Your task to perform on an android device: Open battery settings Image 0: 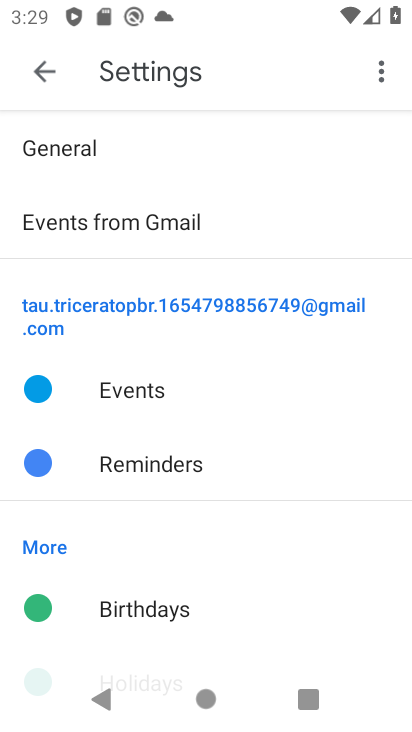
Step 0: press home button
Your task to perform on an android device: Open battery settings Image 1: 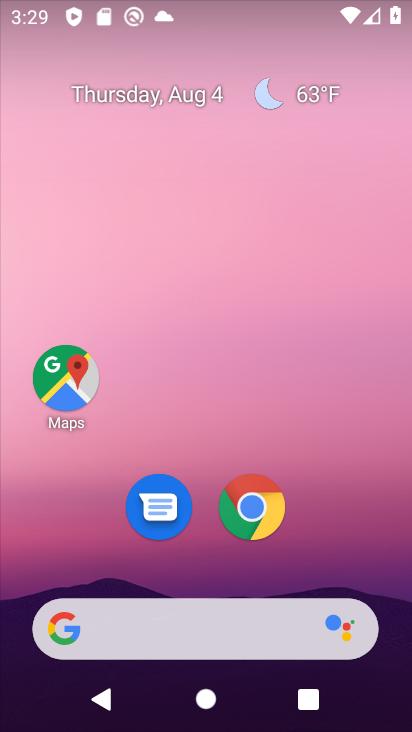
Step 1: drag from (95, 591) to (314, 12)
Your task to perform on an android device: Open battery settings Image 2: 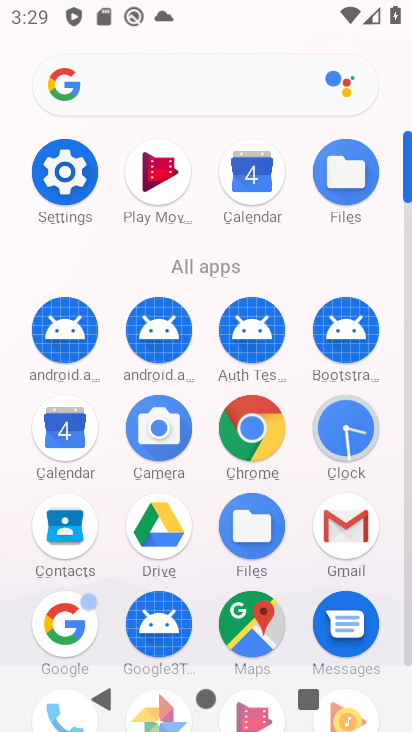
Step 2: click (45, 167)
Your task to perform on an android device: Open battery settings Image 3: 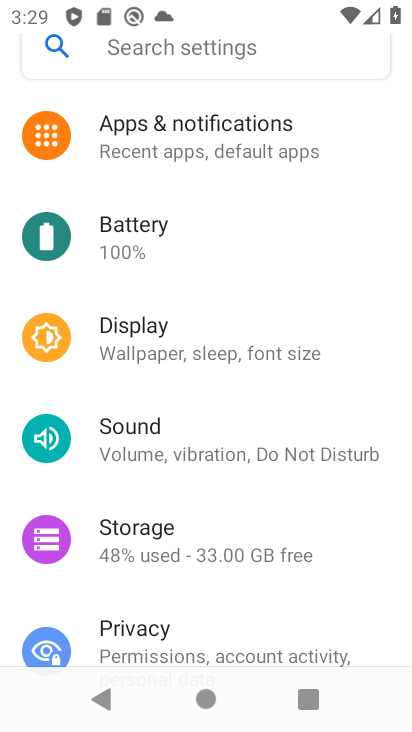
Step 3: click (162, 223)
Your task to perform on an android device: Open battery settings Image 4: 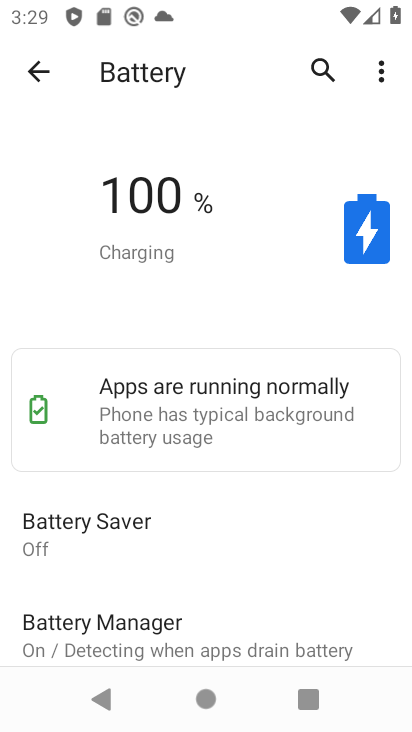
Step 4: task complete